Your task to perform on an android device: turn off notifications settings in the gmail app Image 0: 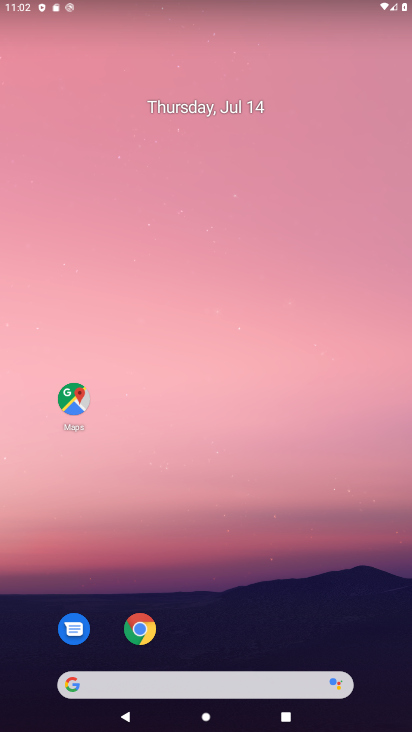
Step 0: drag from (241, 624) to (309, 64)
Your task to perform on an android device: turn off notifications settings in the gmail app Image 1: 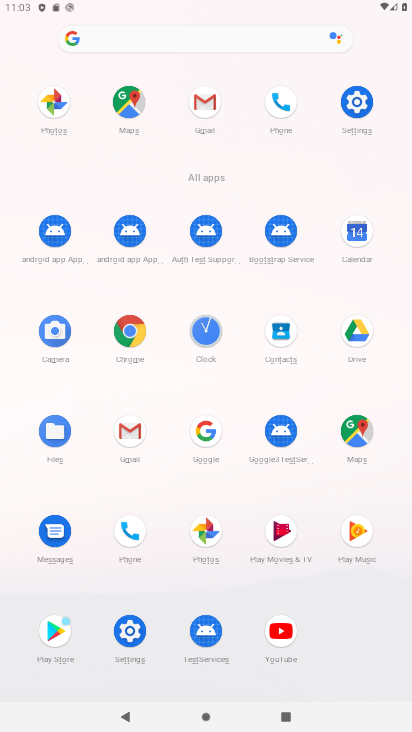
Step 1: click (140, 440)
Your task to perform on an android device: turn off notifications settings in the gmail app Image 2: 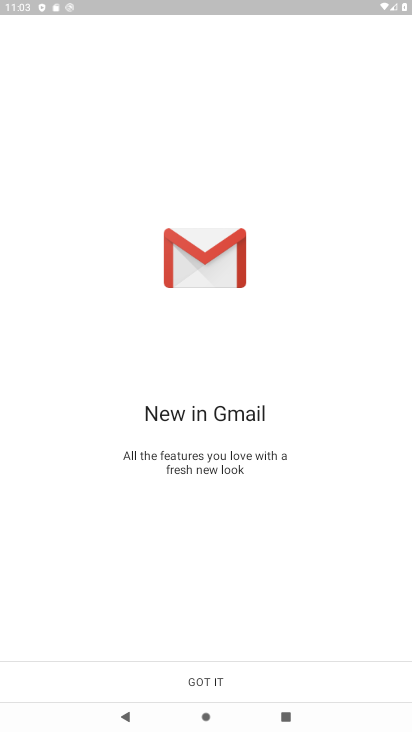
Step 2: click (252, 677)
Your task to perform on an android device: turn off notifications settings in the gmail app Image 3: 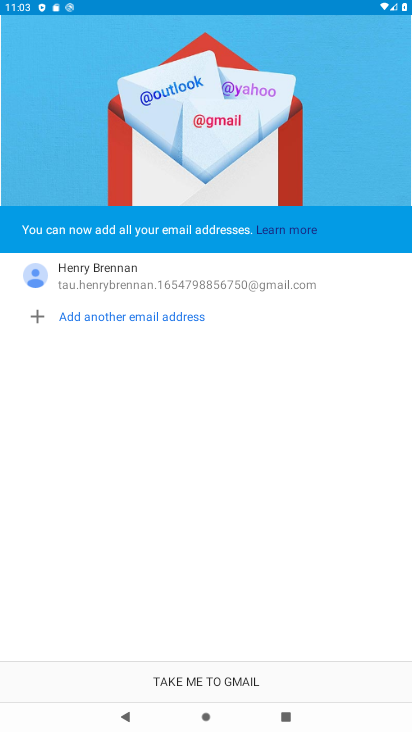
Step 3: click (252, 677)
Your task to perform on an android device: turn off notifications settings in the gmail app Image 4: 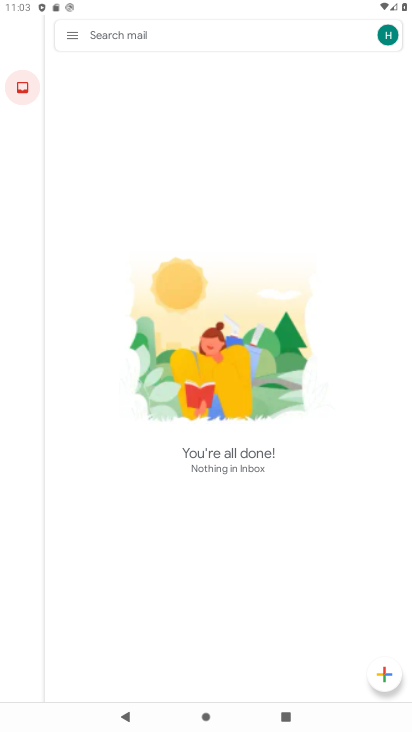
Step 4: click (68, 41)
Your task to perform on an android device: turn off notifications settings in the gmail app Image 5: 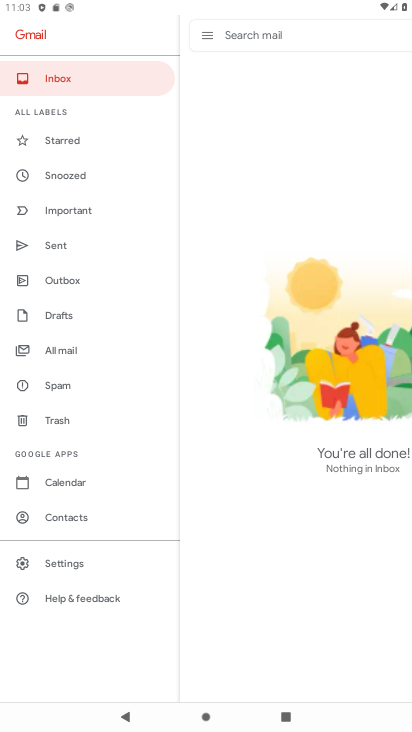
Step 5: click (78, 568)
Your task to perform on an android device: turn off notifications settings in the gmail app Image 6: 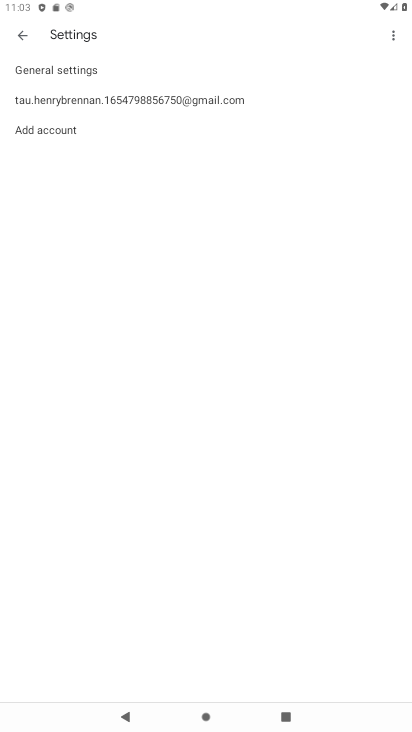
Step 6: click (85, 75)
Your task to perform on an android device: turn off notifications settings in the gmail app Image 7: 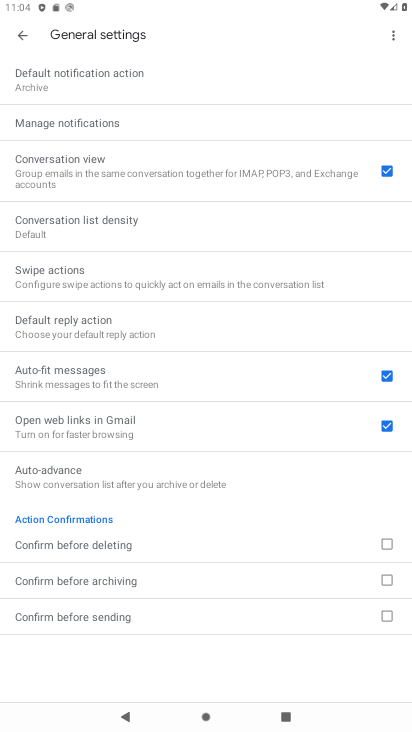
Step 7: click (93, 127)
Your task to perform on an android device: turn off notifications settings in the gmail app Image 8: 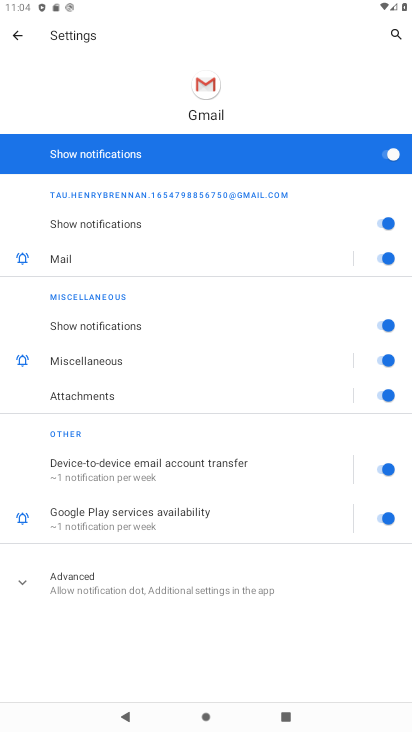
Step 8: click (385, 158)
Your task to perform on an android device: turn off notifications settings in the gmail app Image 9: 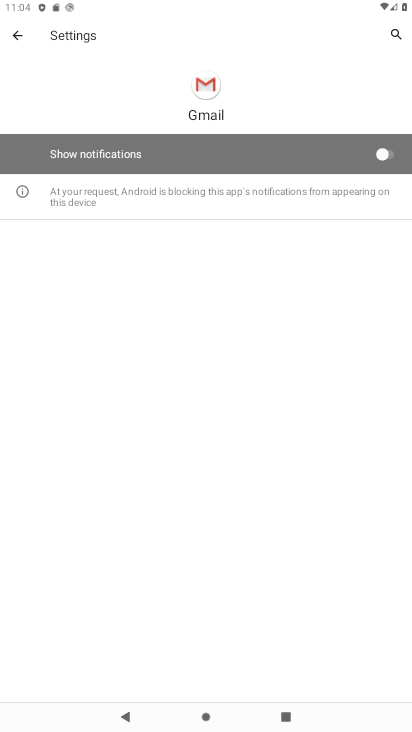
Step 9: task complete